Your task to perform on an android device: What's the weather? Image 0: 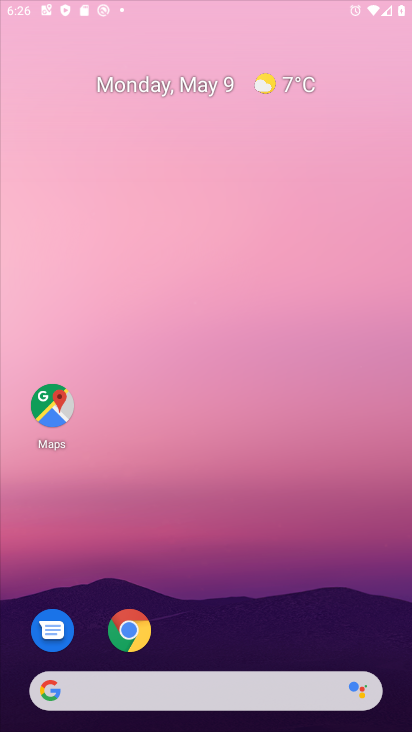
Step 0: drag from (302, 406) to (302, 87)
Your task to perform on an android device: What's the weather? Image 1: 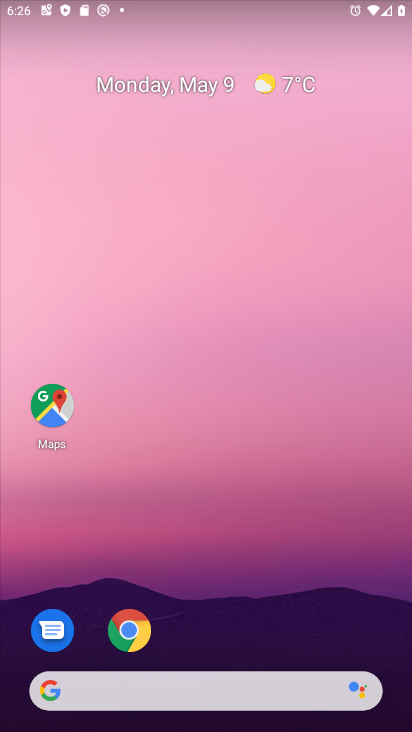
Step 1: drag from (203, 615) to (197, 4)
Your task to perform on an android device: What's the weather? Image 2: 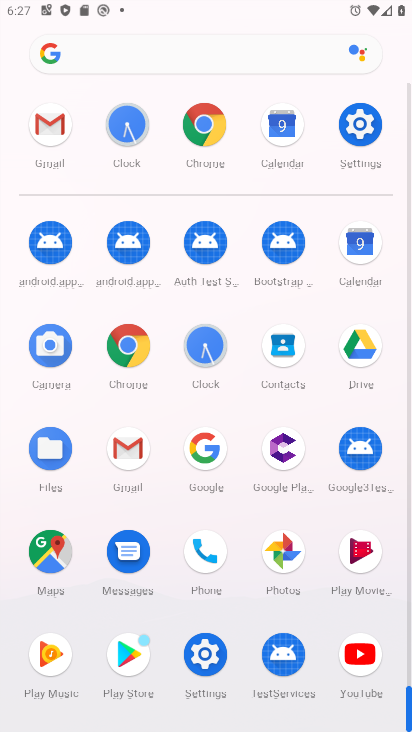
Step 2: click (44, 562)
Your task to perform on an android device: What's the weather? Image 3: 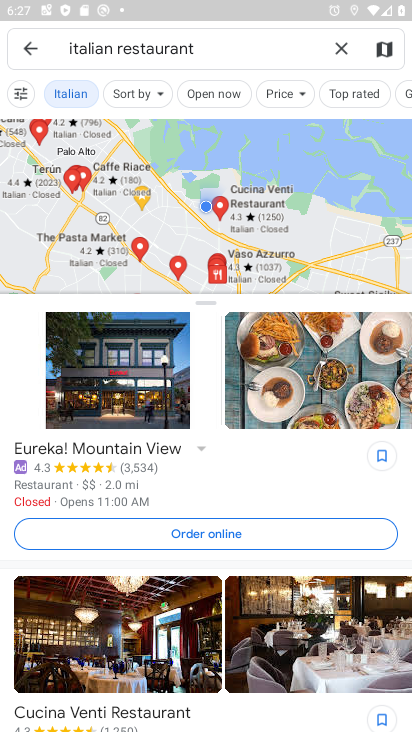
Step 3: press home button
Your task to perform on an android device: What's the weather? Image 4: 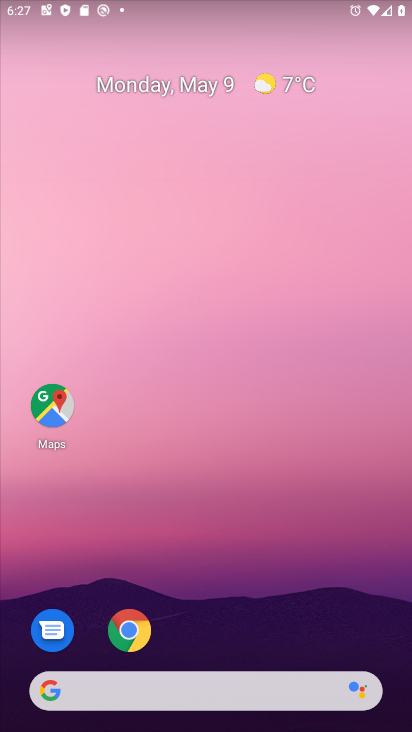
Step 4: drag from (208, 632) to (106, 65)
Your task to perform on an android device: What's the weather? Image 5: 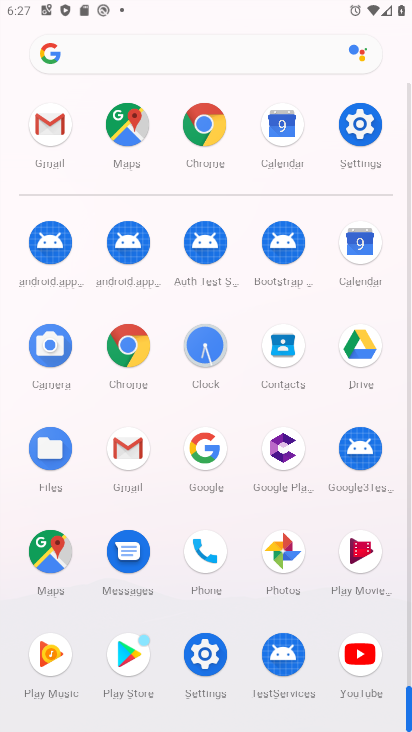
Step 5: click (201, 470)
Your task to perform on an android device: What's the weather? Image 6: 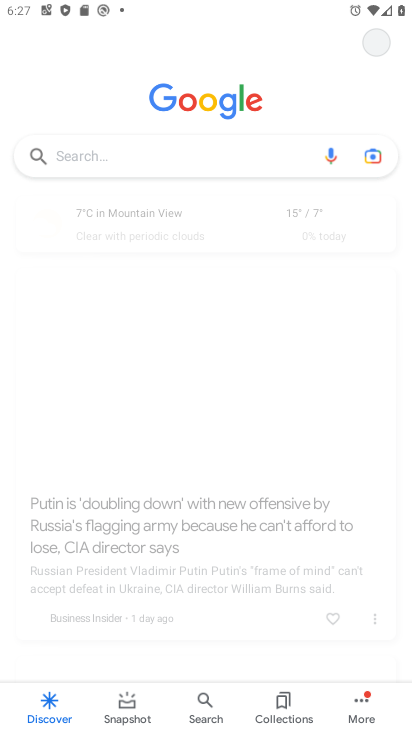
Step 6: click (176, 150)
Your task to perform on an android device: What's the weather? Image 7: 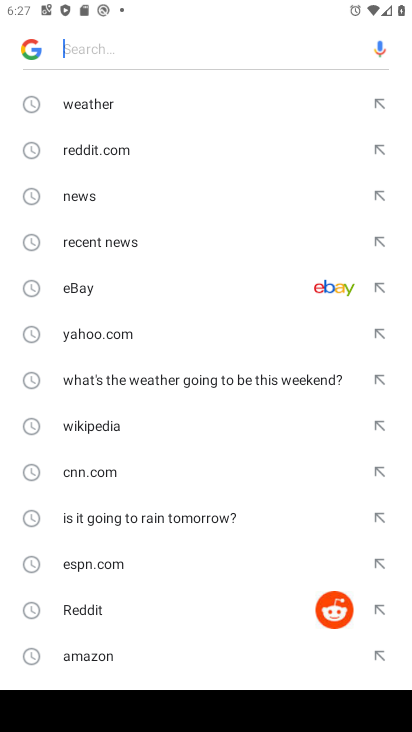
Step 7: click (83, 112)
Your task to perform on an android device: What's the weather? Image 8: 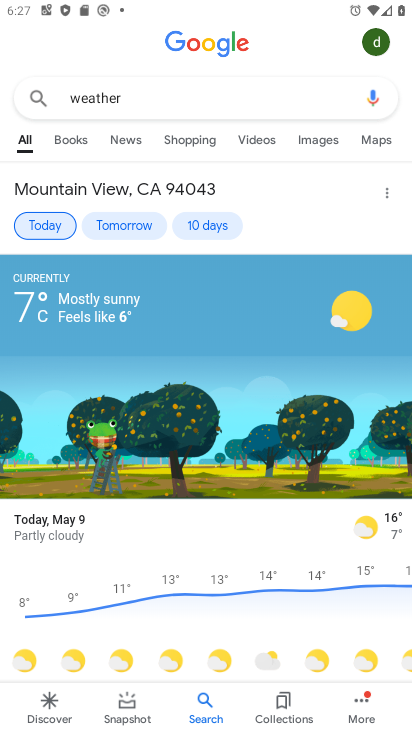
Step 8: drag from (202, 586) to (216, 223)
Your task to perform on an android device: What's the weather? Image 9: 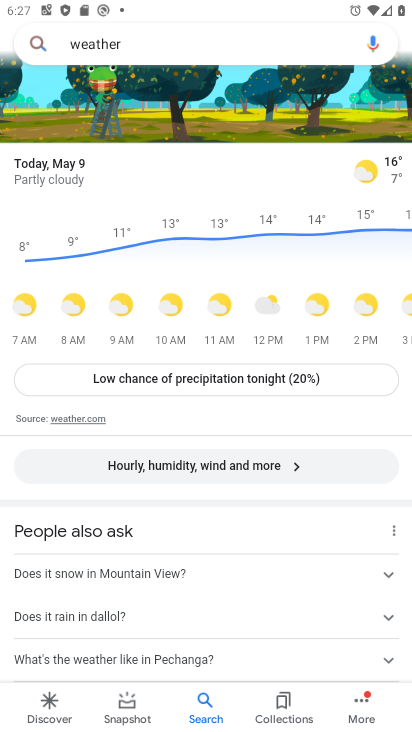
Step 9: drag from (132, 217) to (130, 681)
Your task to perform on an android device: What's the weather? Image 10: 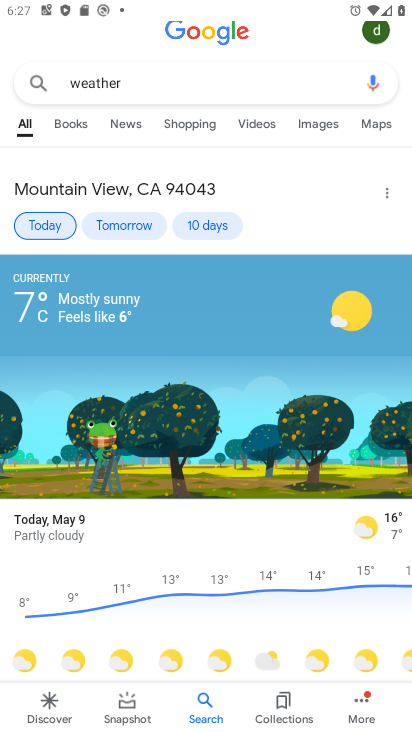
Step 10: drag from (206, 237) to (204, 623)
Your task to perform on an android device: What's the weather? Image 11: 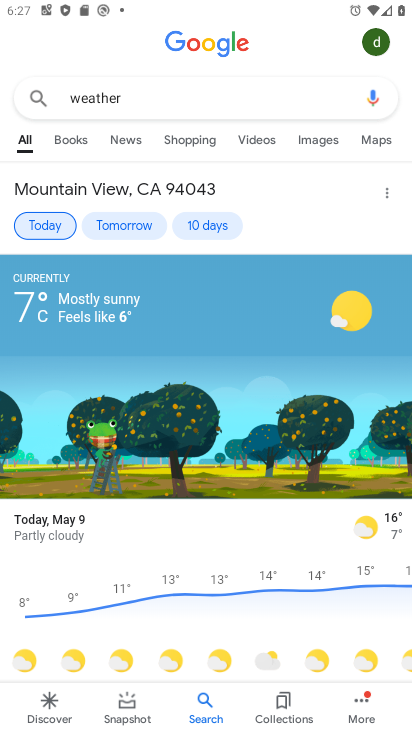
Step 11: press home button
Your task to perform on an android device: What's the weather? Image 12: 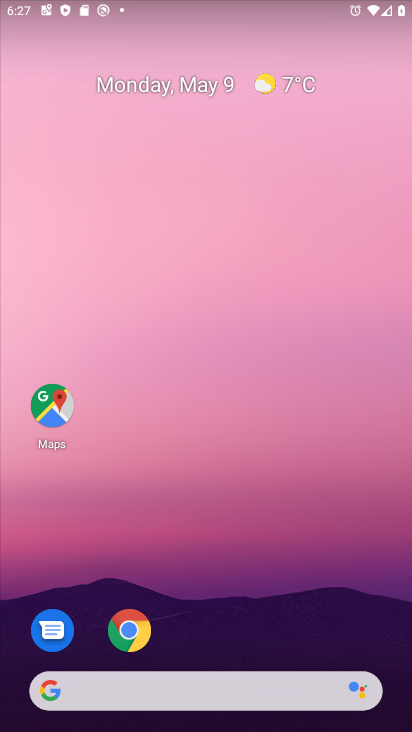
Step 12: drag from (225, 568) to (196, 226)
Your task to perform on an android device: What's the weather? Image 13: 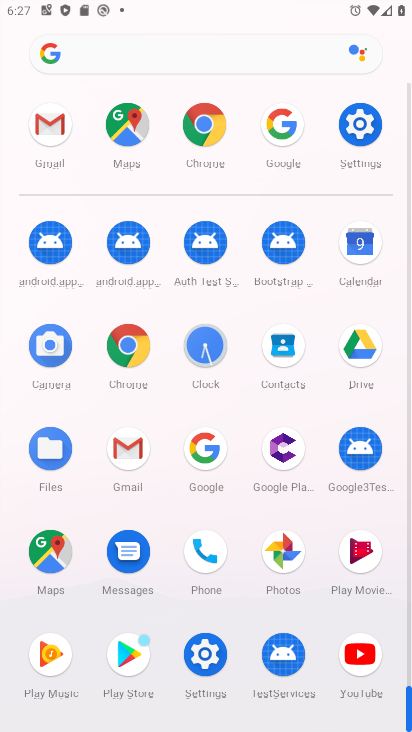
Step 13: click (194, 441)
Your task to perform on an android device: What's the weather? Image 14: 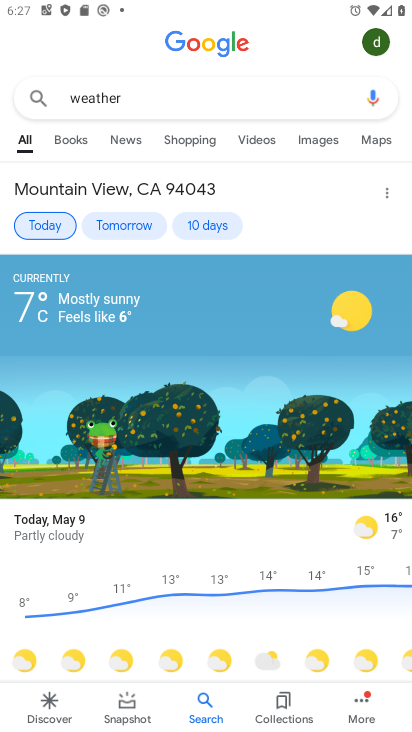
Step 14: task complete